Your task to perform on an android device: Open the calendar and show me this week's events? Image 0: 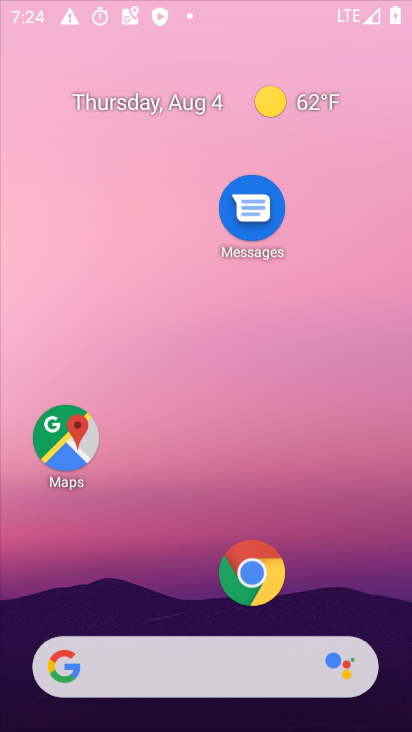
Step 0: press home button
Your task to perform on an android device: Open the calendar and show me this week's events? Image 1: 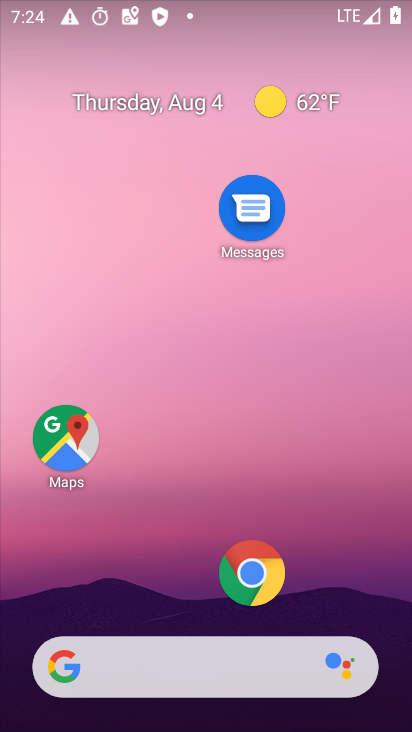
Step 1: drag from (204, 471) to (200, 151)
Your task to perform on an android device: Open the calendar and show me this week's events? Image 2: 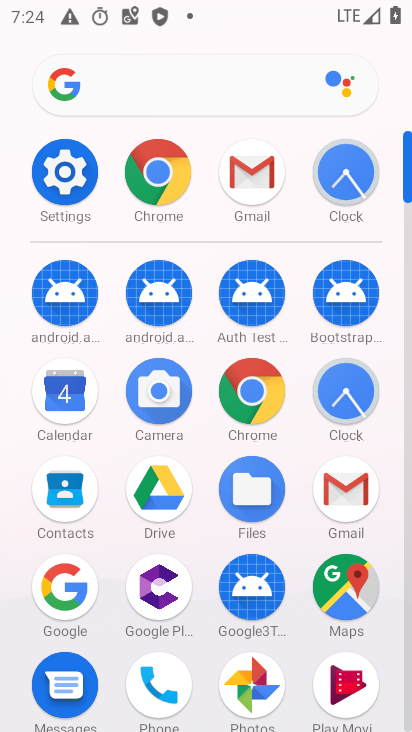
Step 2: click (61, 403)
Your task to perform on an android device: Open the calendar and show me this week's events? Image 3: 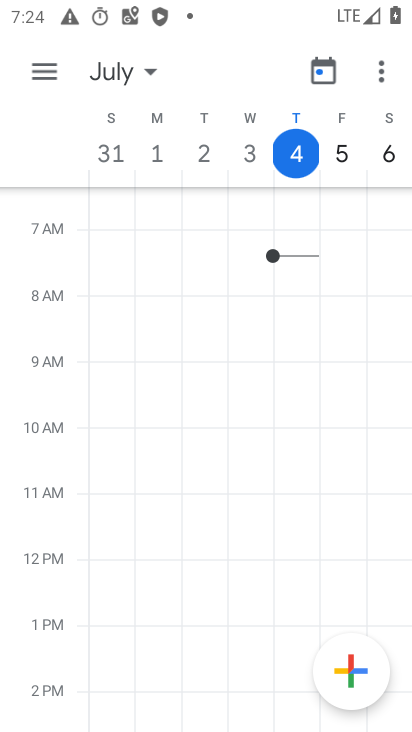
Step 3: click (141, 65)
Your task to perform on an android device: Open the calendar and show me this week's events? Image 4: 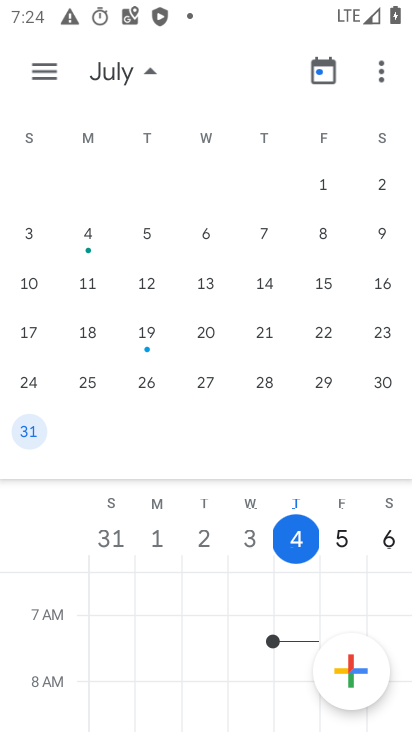
Step 4: task complete